Your task to perform on an android device: toggle priority inbox in the gmail app Image 0: 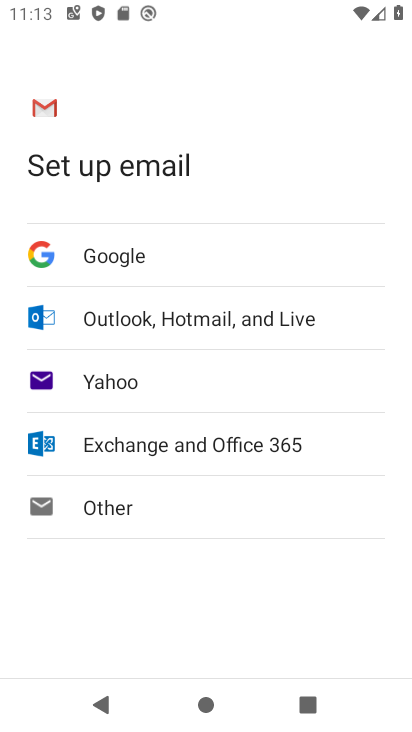
Step 0: press home button
Your task to perform on an android device: toggle priority inbox in the gmail app Image 1: 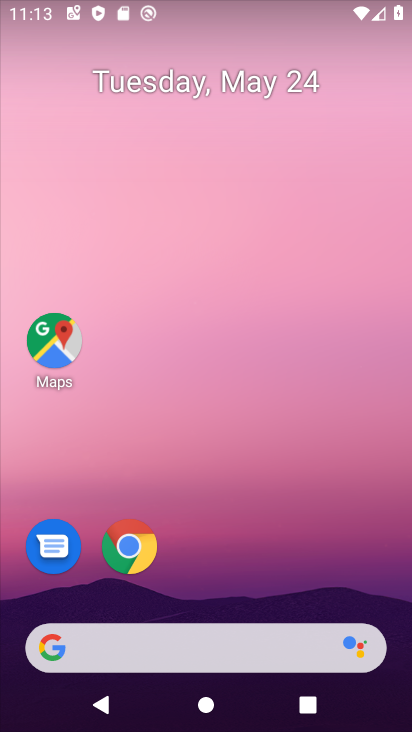
Step 1: drag from (237, 594) to (230, 105)
Your task to perform on an android device: toggle priority inbox in the gmail app Image 2: 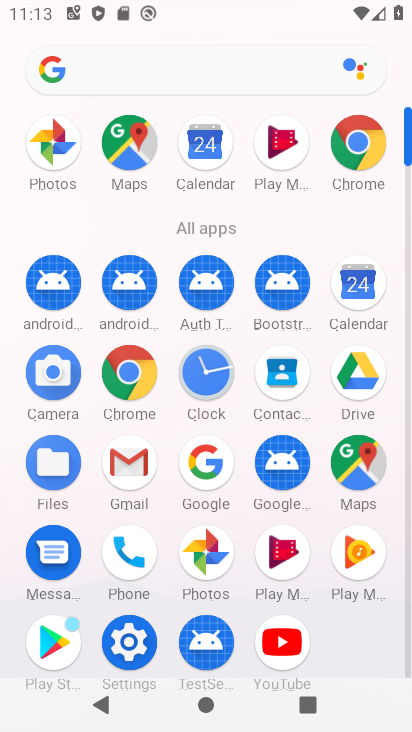
Step 2: click (137, 468)
Your task to perform on an android device: toggle priority inbox in the gmail app Image 3: 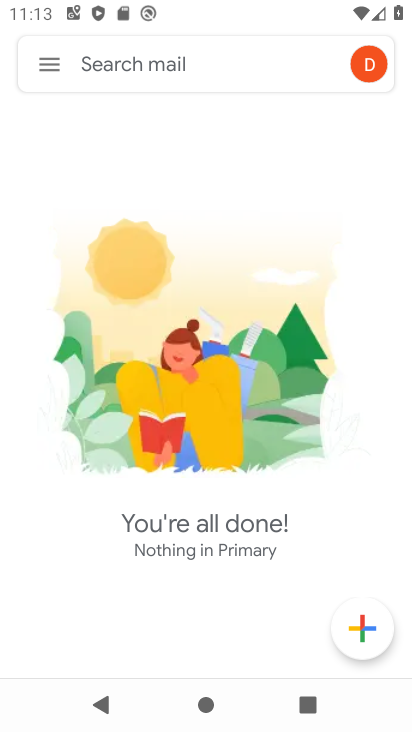
Step 3: click (54, 68)
Your task to perform on an android device: toggle priority inbox in the gmail app Image 4: 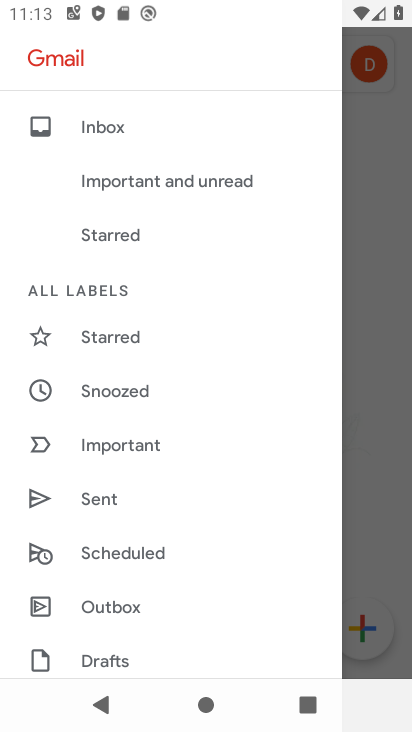
Step 4: drag from (148, 624) to (120, 193)
Your task to perform on an android device: toggle priority inbox in the gmail app Image 5: 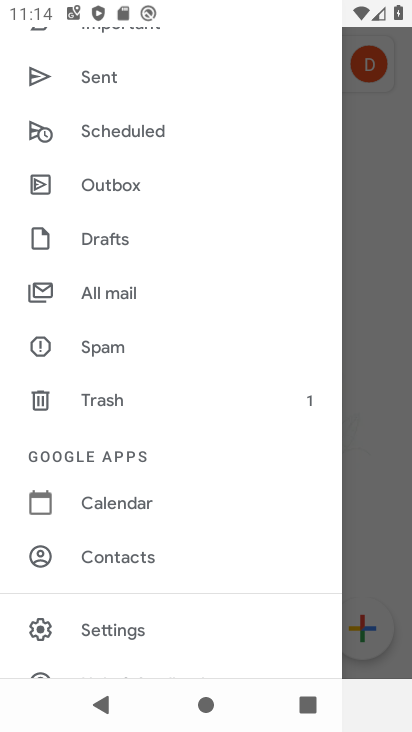
Step 5: click (161, 619)
Your task to perform on an android device: toggle priority inbox in the gmail app Image 6: 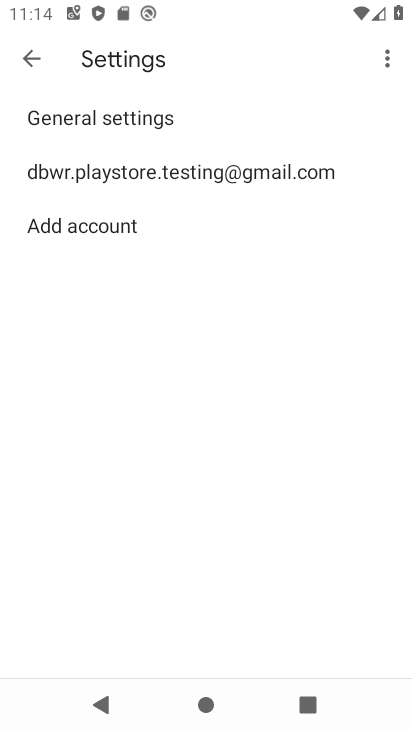
Step 6: click (200, 167)
Your task to perform on an android device: toggle priority inbox in the gmail app Image 7: 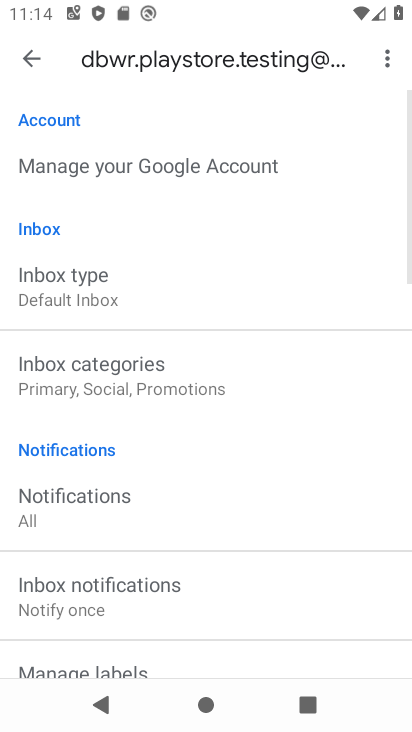
Step 7: click (172, 302)
Your task to perform on an android device: toggle priority inbox in the gmail app Image 8: 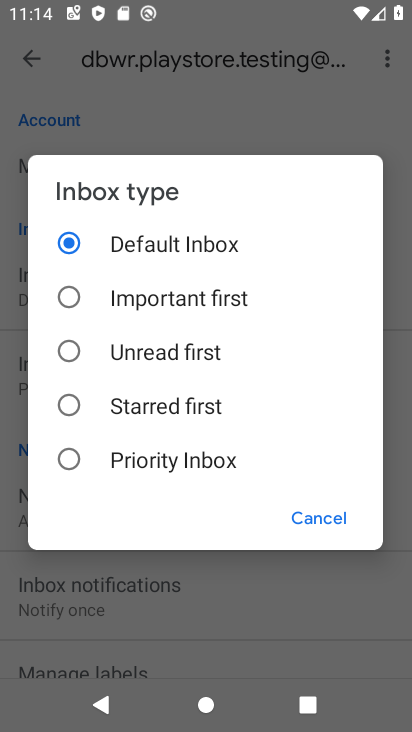
Step 8: click (188, 450)
Your task to perform on an android device: toggle priority inbox in the gmail app Image 9: 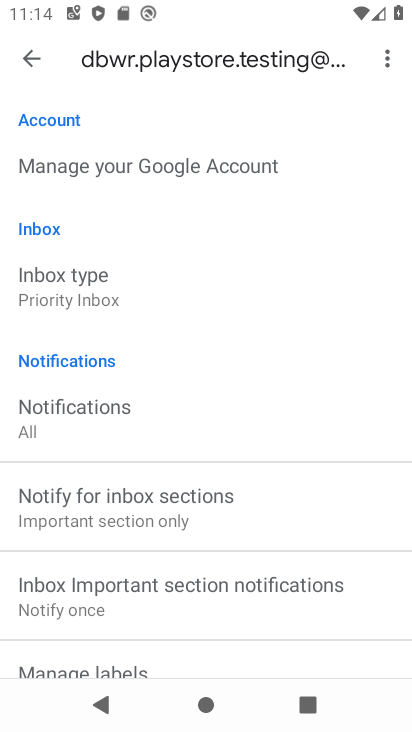
Step 9: task complete